Your task to perform on an android device: Open CNN.com Image 0: 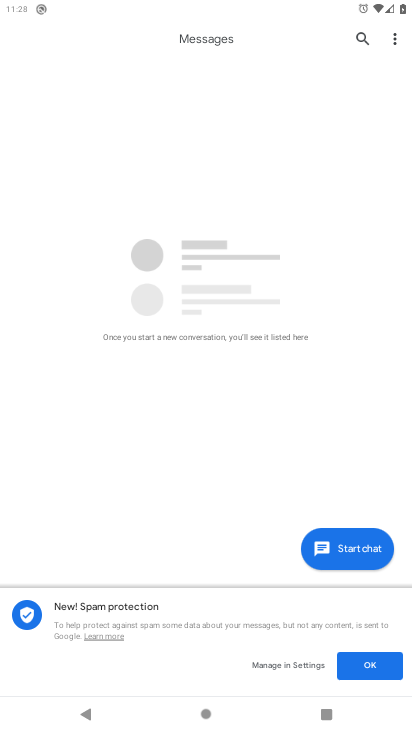
Step 0: press home button
Your task to perform on an android device: Open CNN.com Image 1: 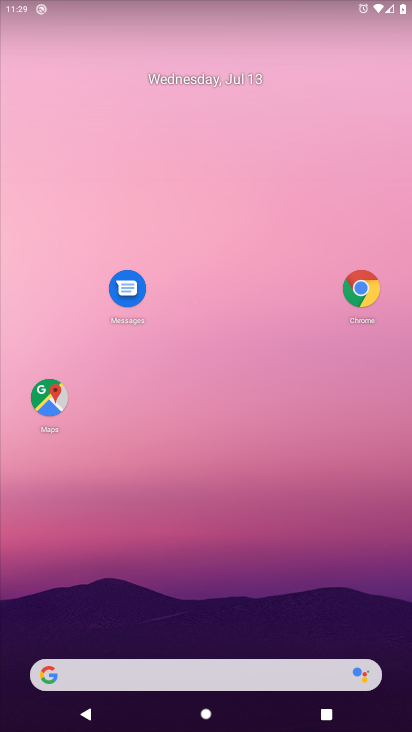
Step 1: click (125, 666)
Your task to perform on an android device: Open CNN.com Image 2: 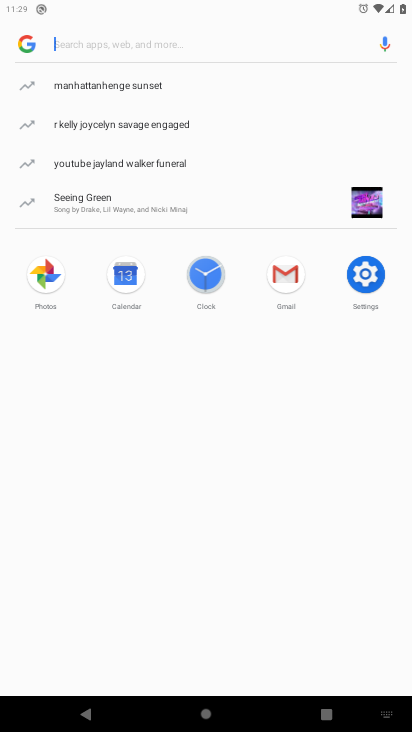
Step 2: type "CNN.com"
Your task to perform on an android device: Open CNN.com Image 3: 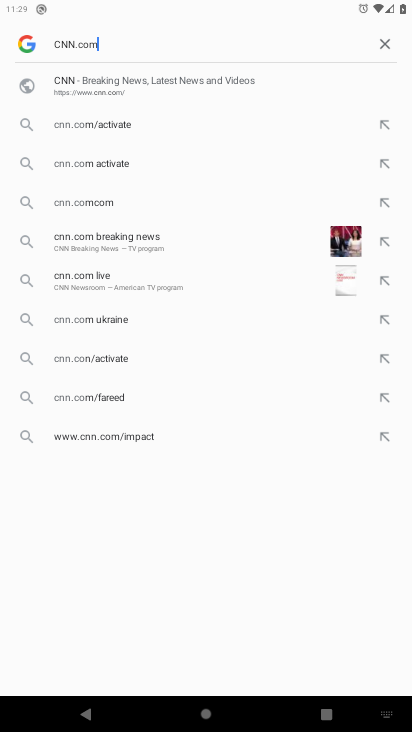
Step 3: type ""
Your task to perform on an android device: Open CNN.com Image 4: 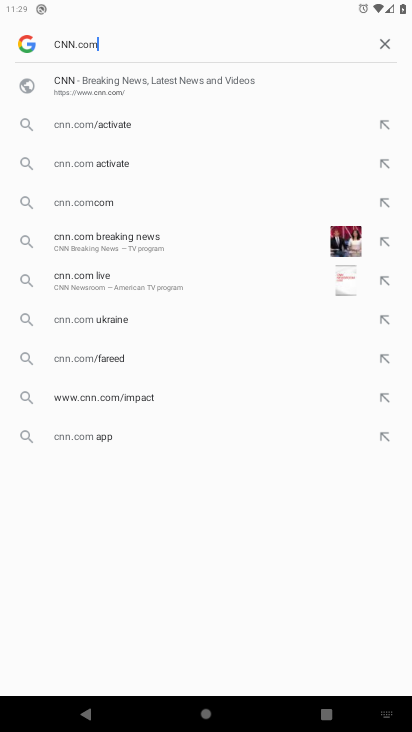
Step 4: click (173, 85)
Your task to perform on an android device: Open CNN.com Image 5: 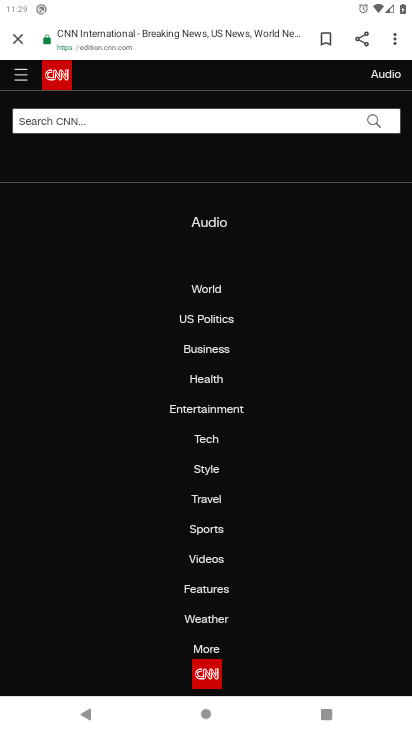
Step 5: task complete